Your task to perform on an android device: Open the web browser Image 0: 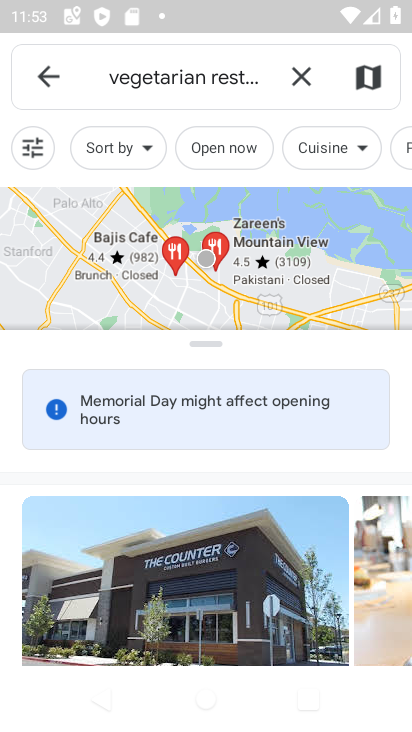
Step 0: press home button
Your task to perform on an android device: Open the web browser Image 1: 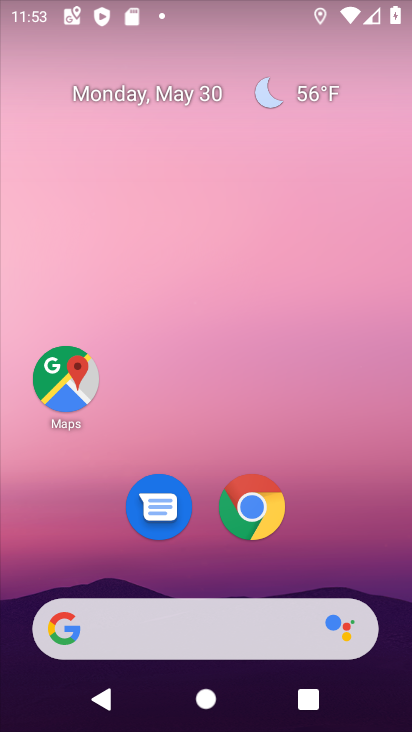
Step 1: click (140, 642)
Your task to perform on an android device: Open the web browser Image 2: 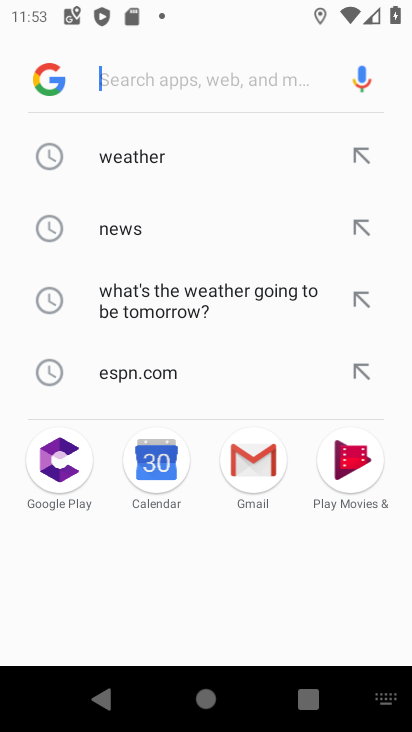
Step 2: click (162, 84)
Your task to perform on an android device: Open the web browser Image 3: 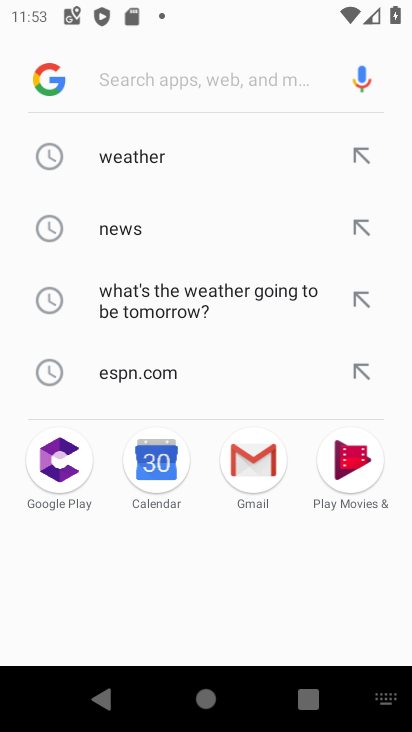
Step 3: task complete